Your task to perform on an android device: read, delete, or share a saved page in the chrome app Image 0: 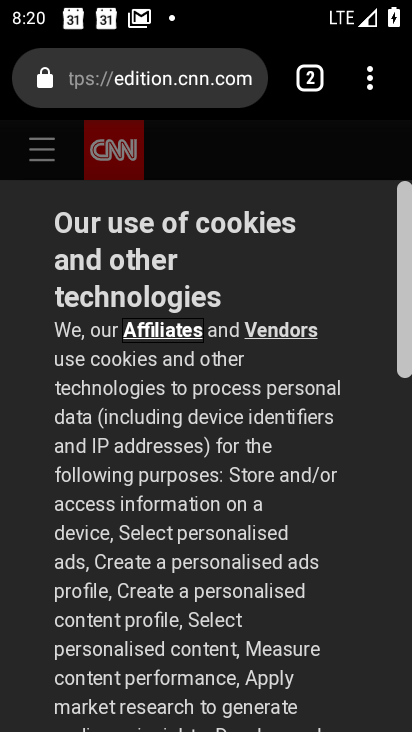
Step 0: press home button
Your task to perform on an android device: read, delete, or share a saved page in the chrome app Image 1: 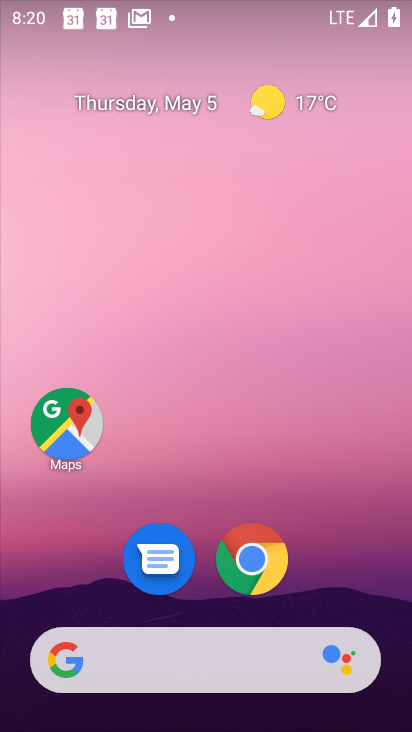
Step 1: click (257, 557)
Your task to perform on an android device: read, delete, or share a saved page in the chrome app Image 2: 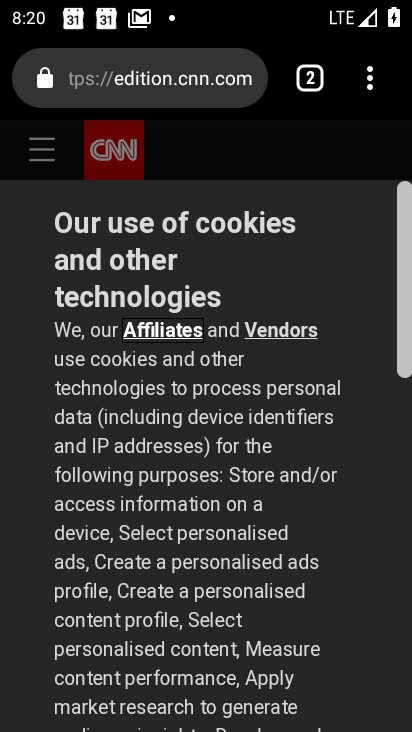
Step 2: click (371, 86)
Your task to perform on an android device: read, delete, or share a saved page in the chrome app Image 3: 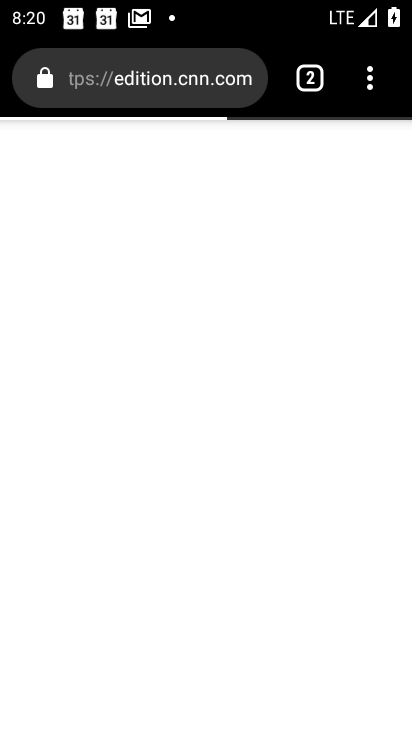
Step 3: drag from (369, 80) to (80, 508)
Your task to perform on an android device: read, delete, or share a saved page in the chrome app Image 4: 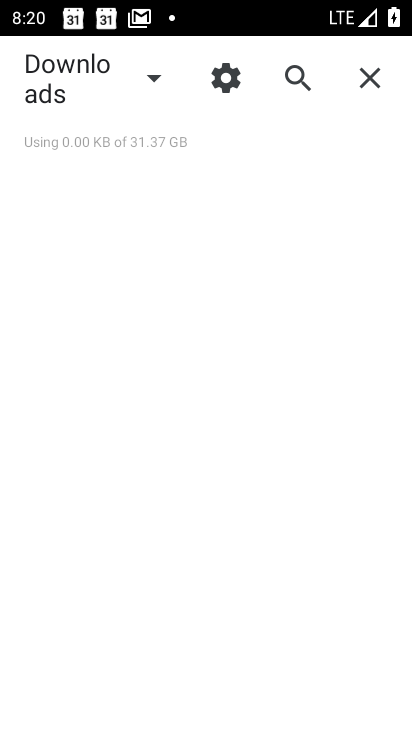
Step 4: click (155, 79)
Your task to perform on an android device: read, delete, or share a saved page in the chrome app Image 5: 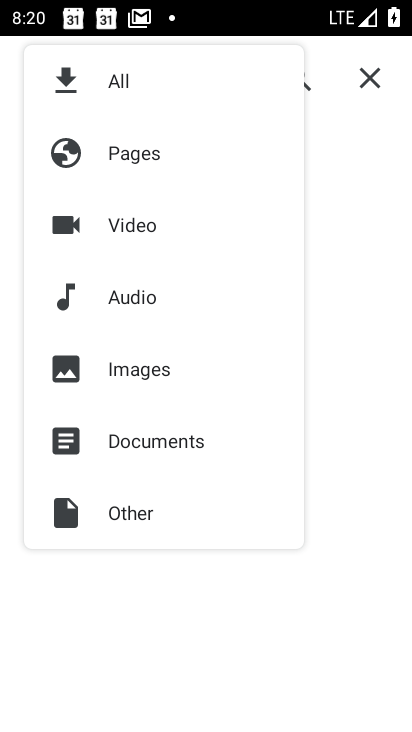
Step 5: click (141, 155)
Your task to perform on an android device: read, delete, or share a saved page in the chrome app Image 6: 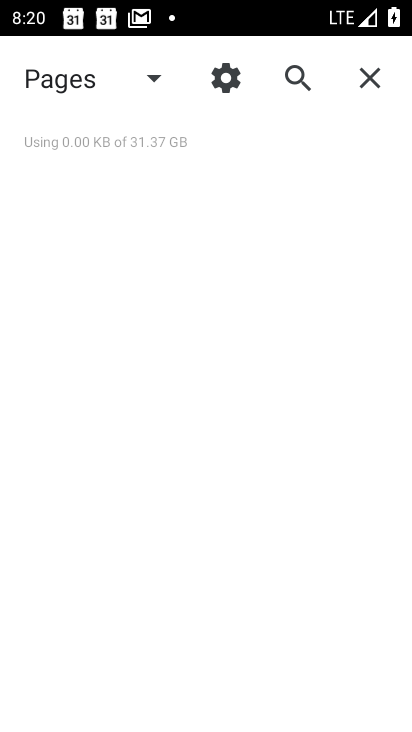
Step 6: task complete